Your task to perform on an android device: turn off airplane mode Image 0: 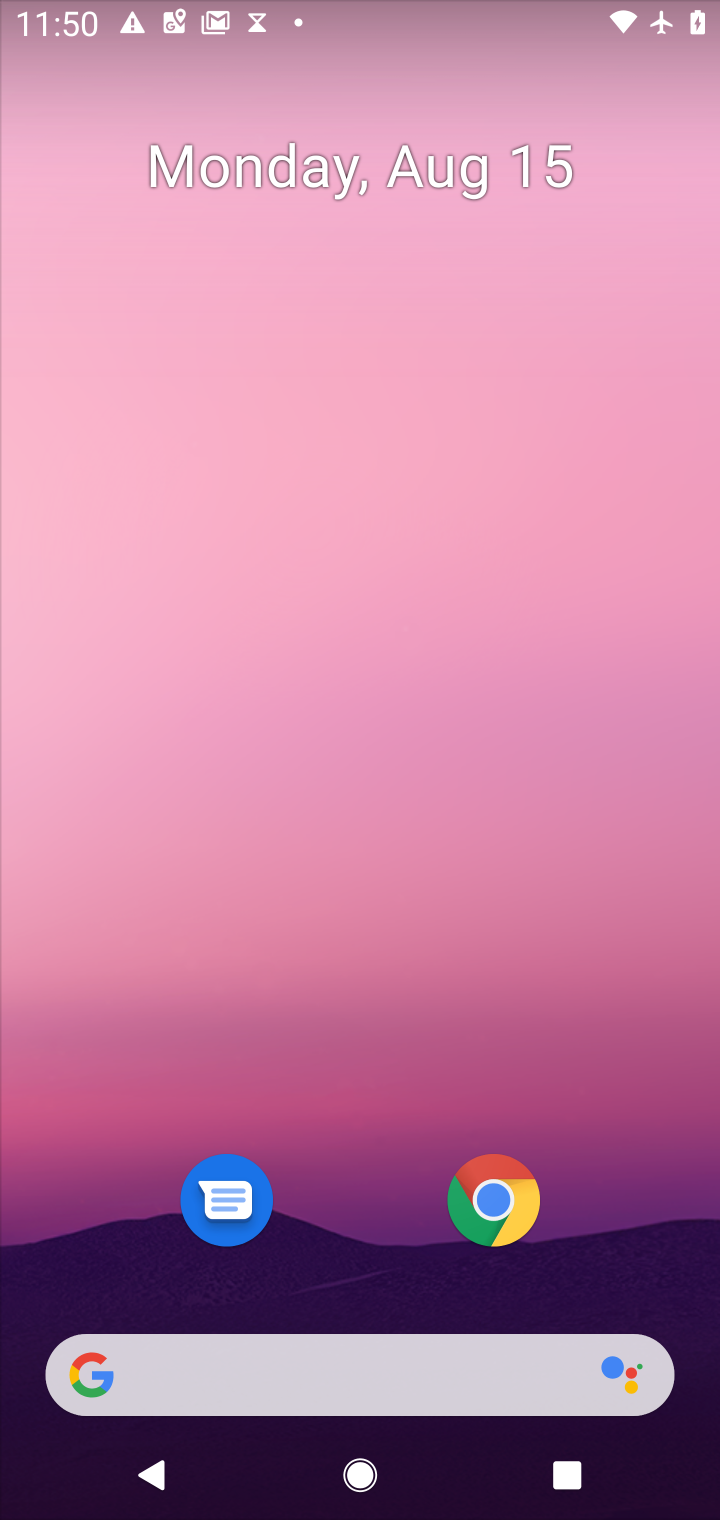
Step 0: drag from (306, 1044) to (311, 641)
Your task to perform on an android device: turn off airplane mode Image 1: 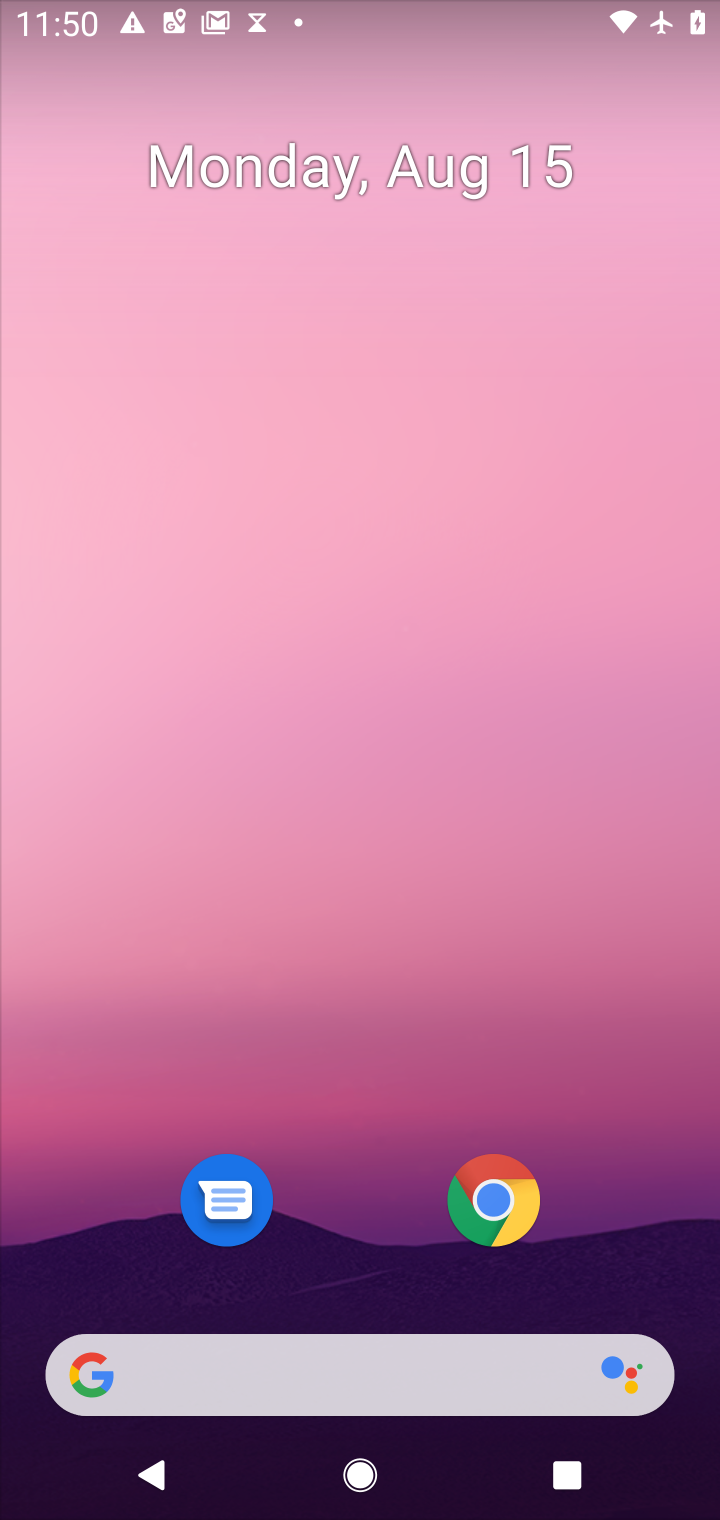
Step 1: drag from (358, 1158) to (369, 479)
Your task to perform on an android device: turn off airplane mode Image 2: 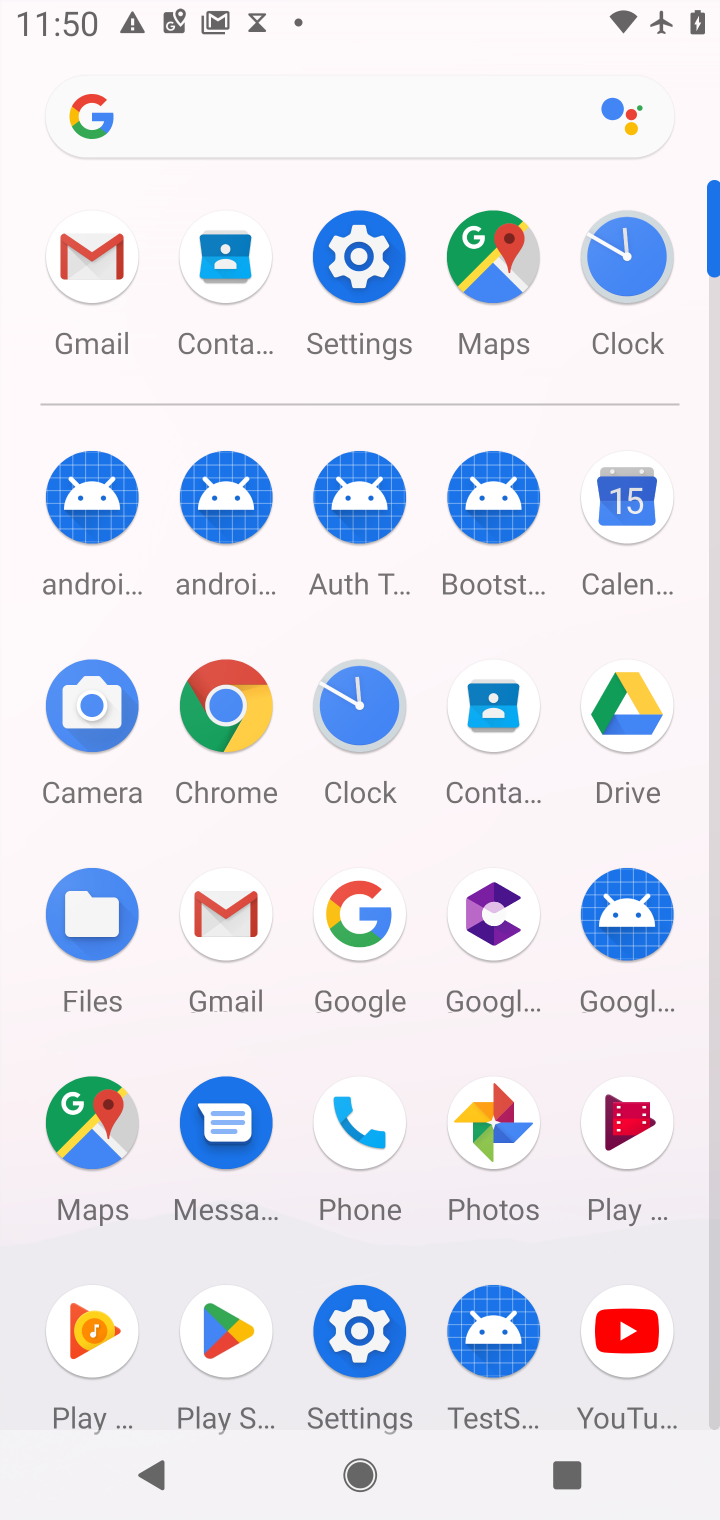
Step 2: click (346, 226)
Your task to perform on an android device: turn off airplane mode Image 3: 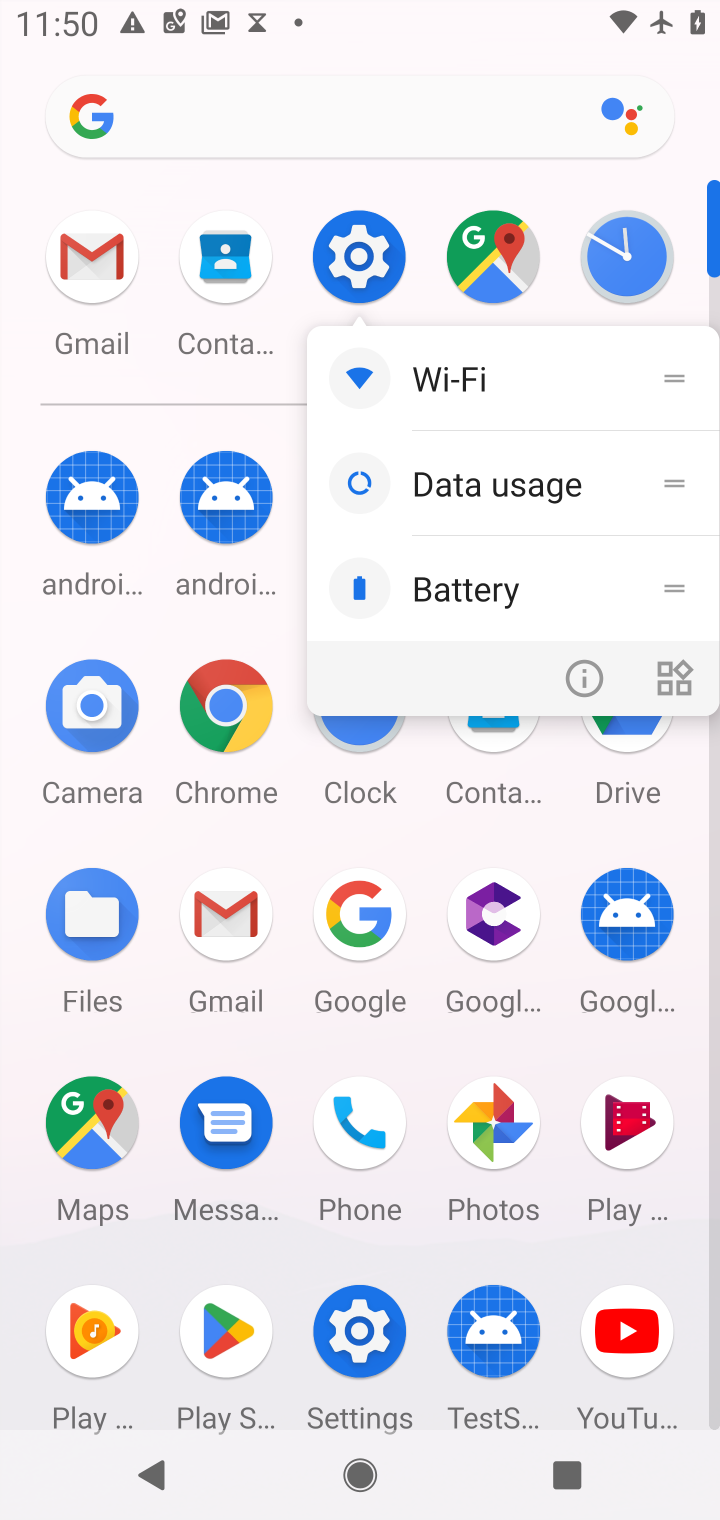
Step 3: click (352, 273)
Your task to perform on an android device: turn off airplane mode Image 4: 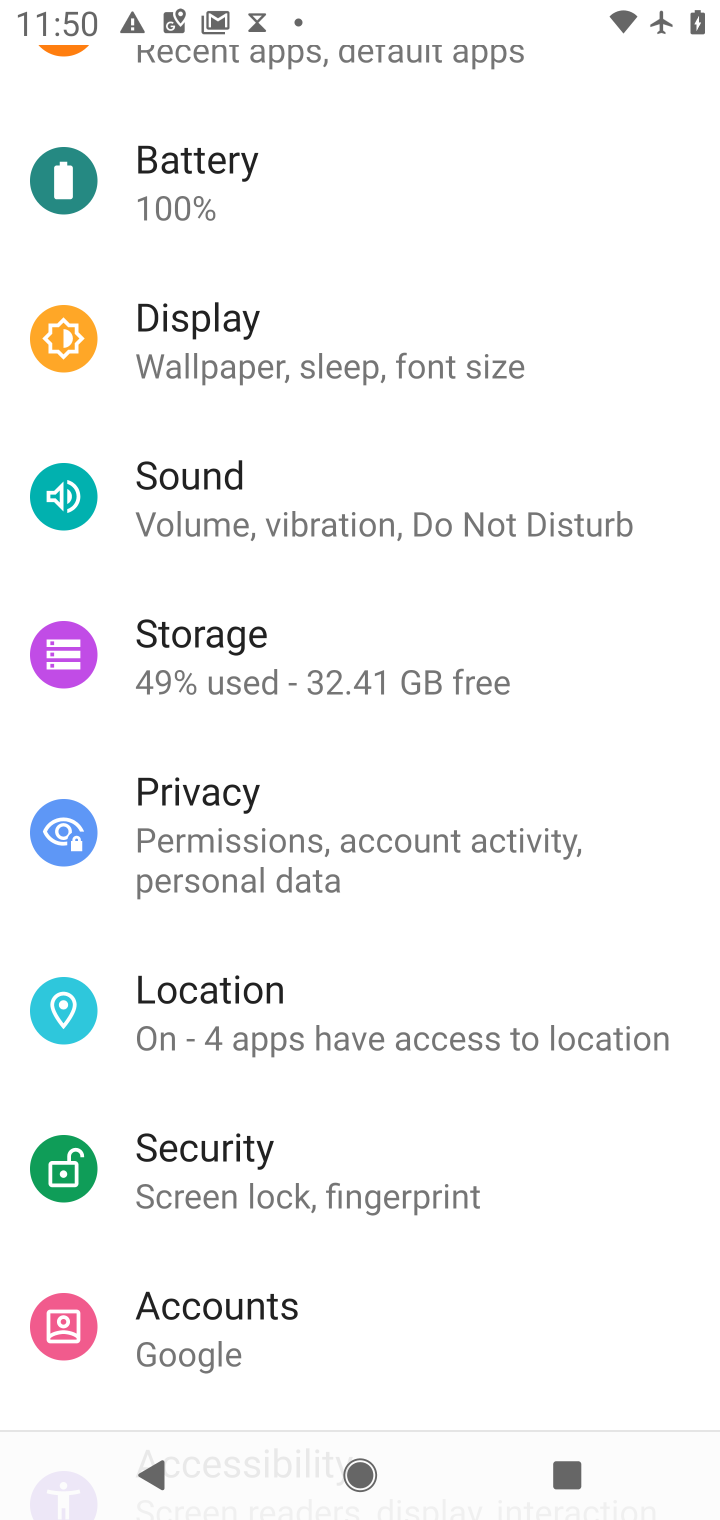
Step 4: drag from (352, 273) to (374, 905)
Your task to perform on an android device: turn off airplane mode Image 5: 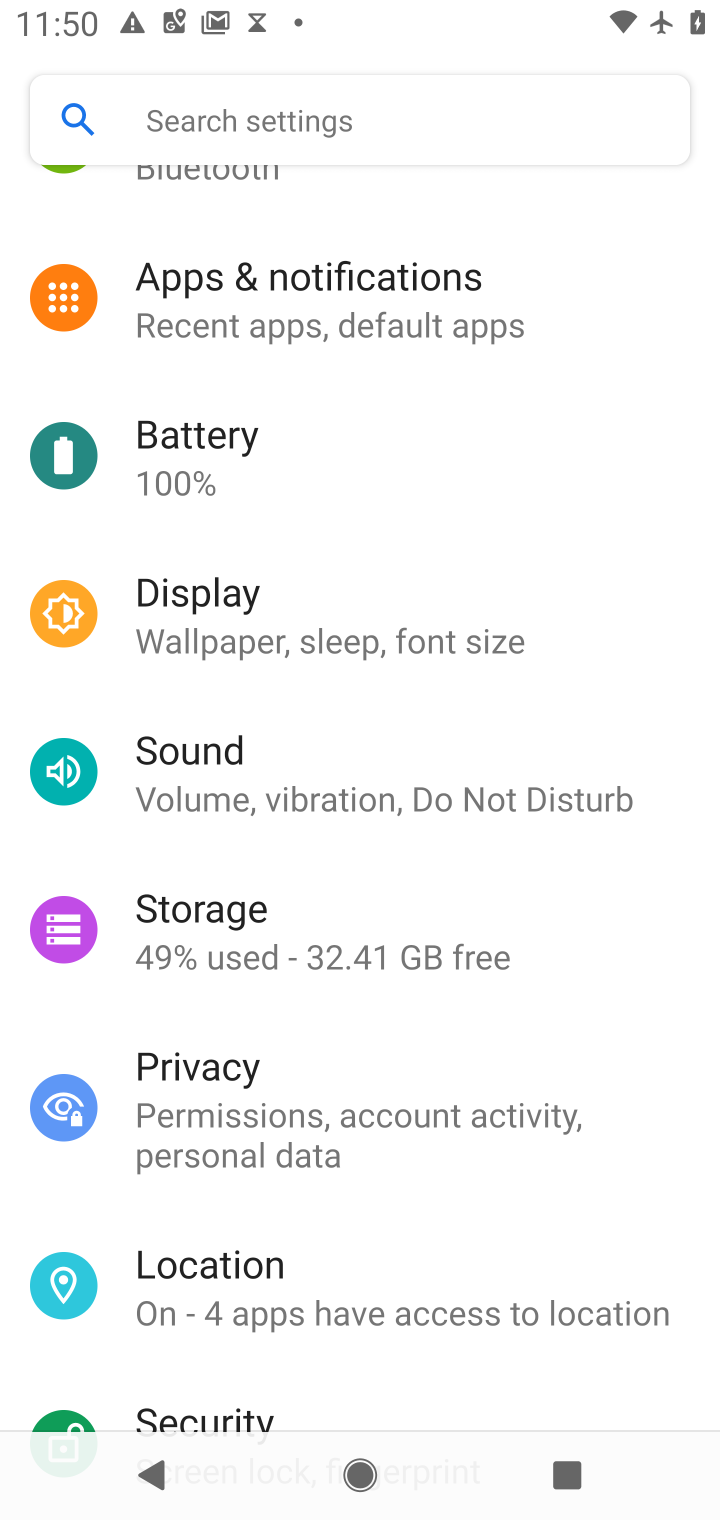
Step 5: drag from (372, 505) to (378, 942)
Your task to perform on an android device: turn off airplane mode Image 6: 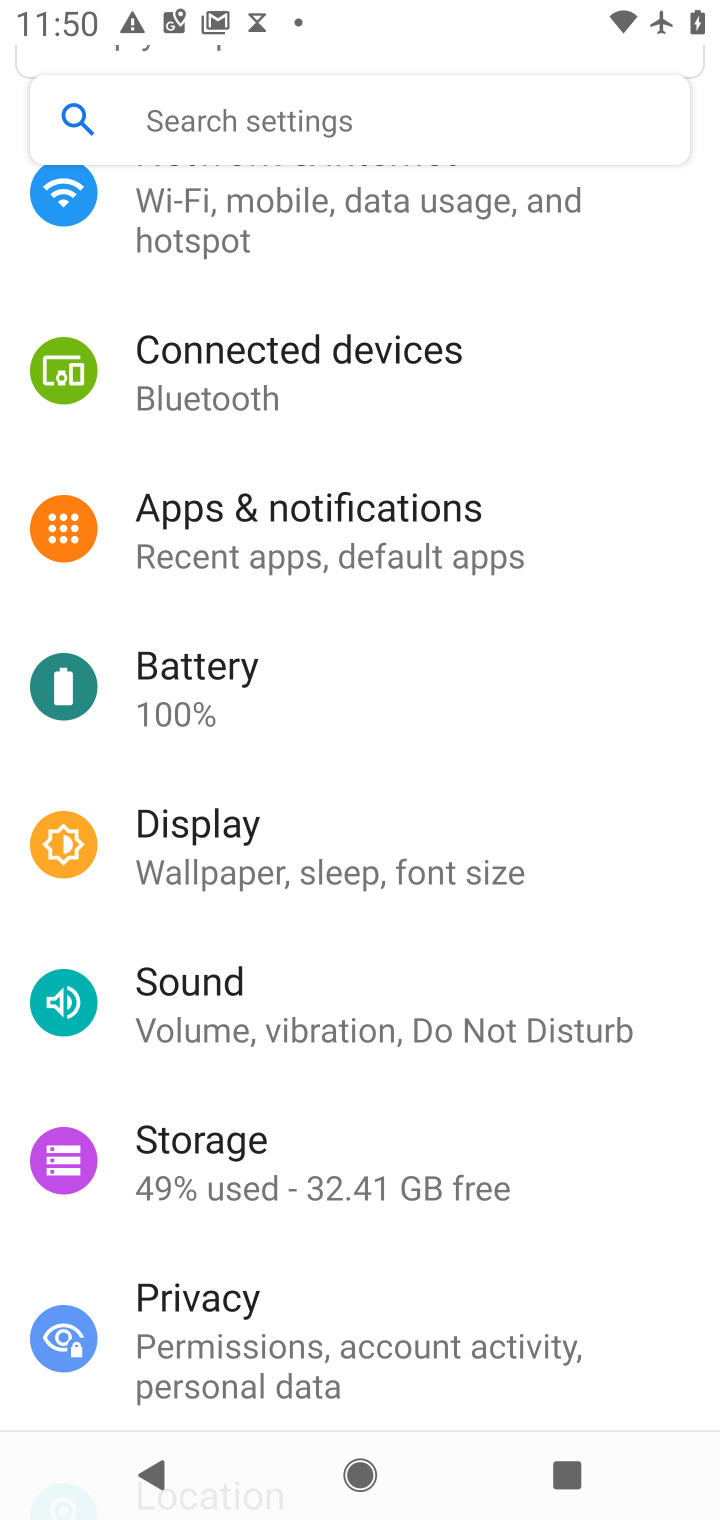
Step 6: drag from (402, 475) to (388, 825)
Your task to perform on an android device: turn off airplane mode Image 7: 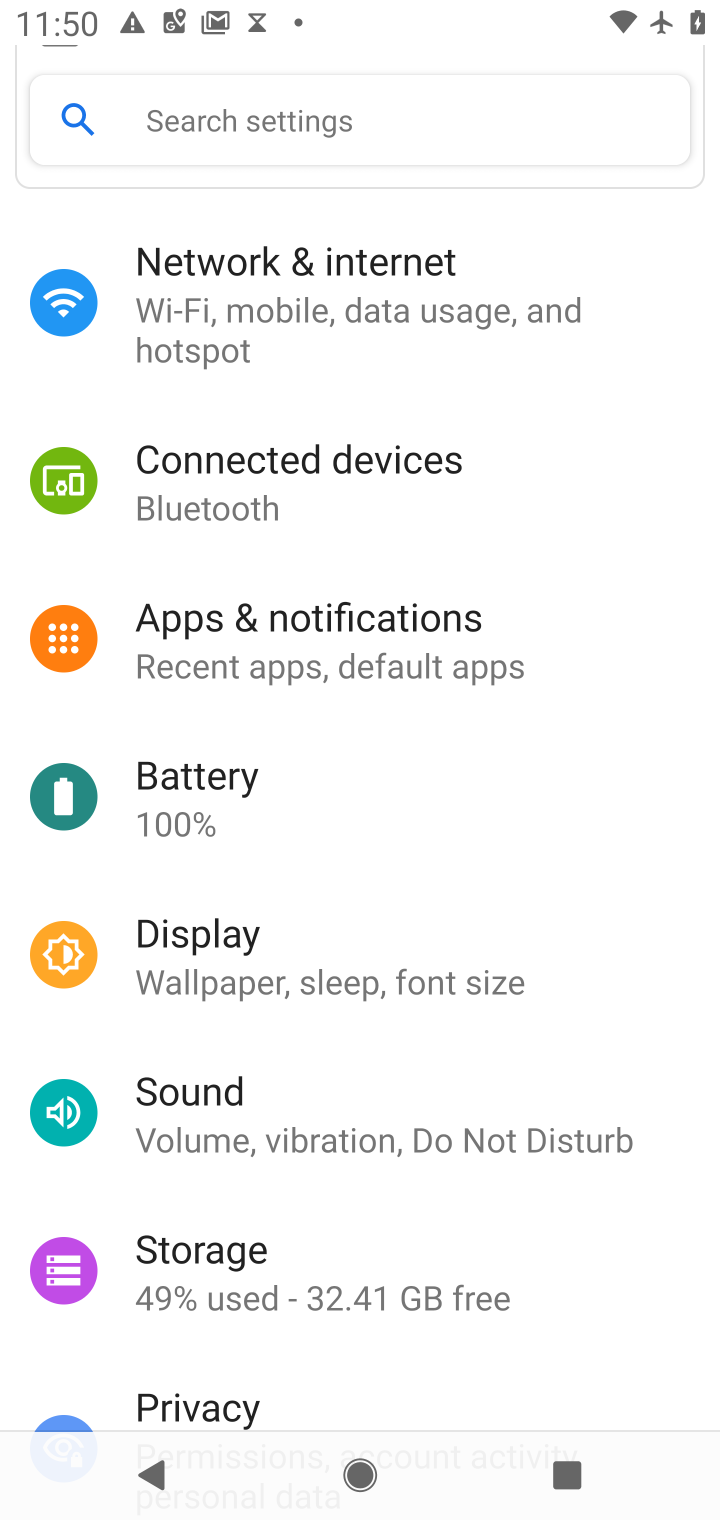
Step 7: click (394, 313)
Your task to perform on an android device: turn off airplane mode Image 8: 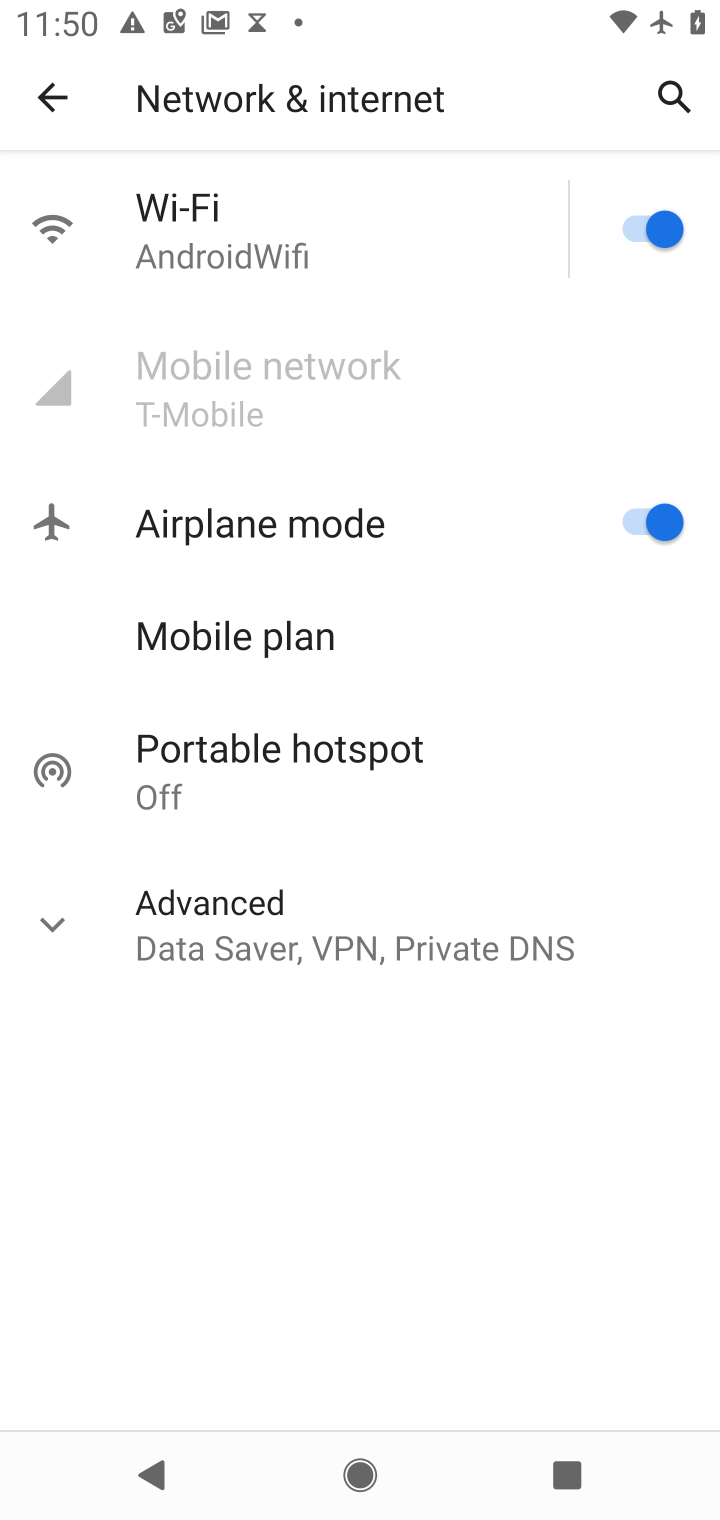
Step 8: click (623, 537)
Your task to perform on an android device: turn off airplane mode Image 9: 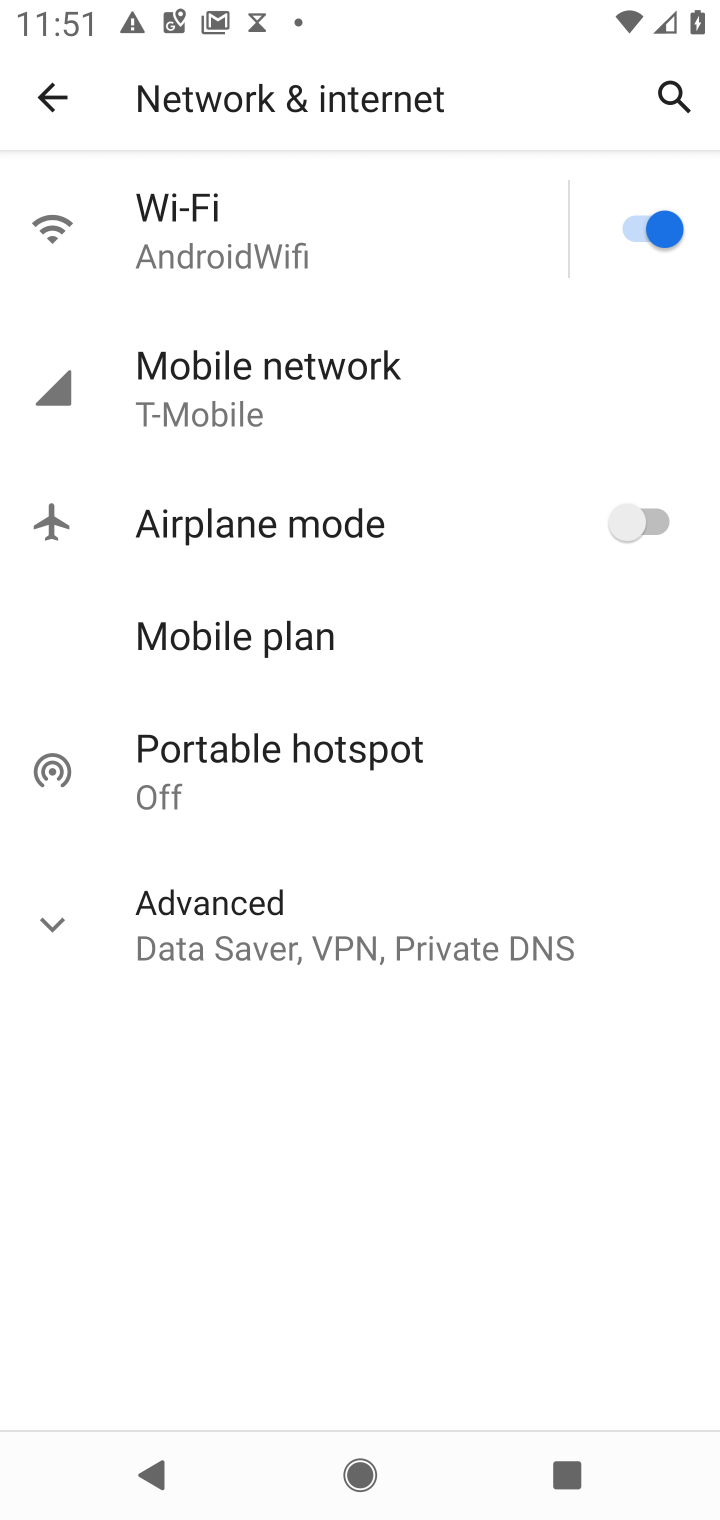
Step 9: task complete